Your task to perform on an android device: Go to privacy settings Image 0: 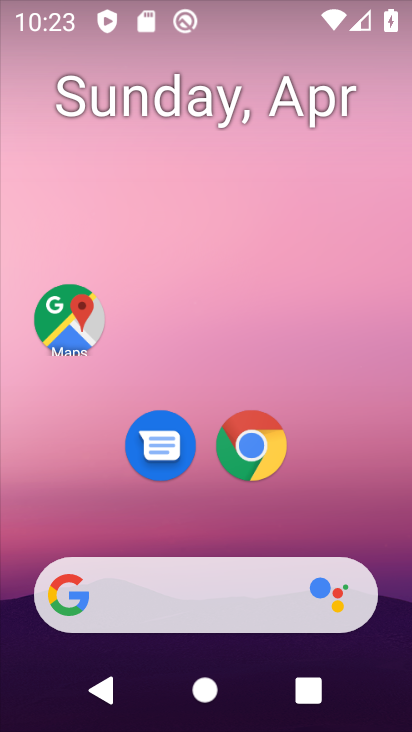
Step 0: press home button
Your task to perform on an android device: Go to privacy settings Image 1: 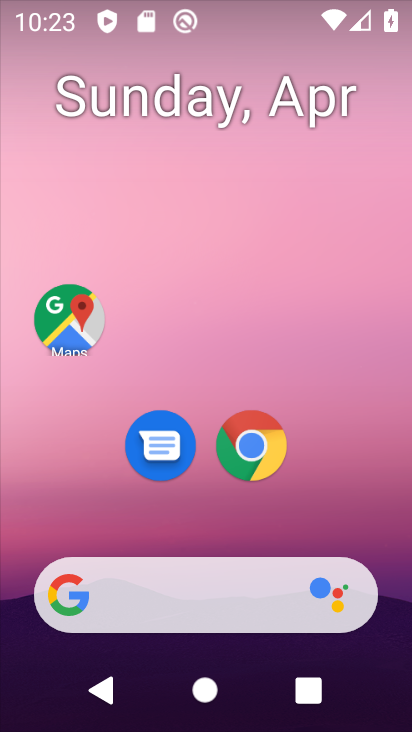
Step 1: drag from (220, 560) to (333, 33)
Your task to perform on an android device: Go to privacy settings Image 2: 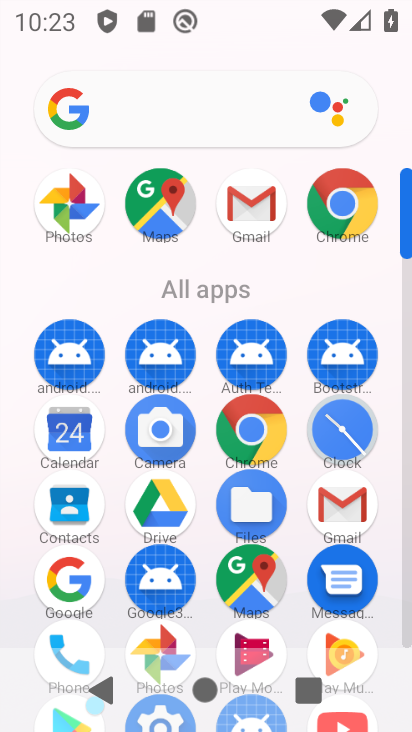
Step 2: drag from (128, 615) to (323, 73)
Your task to perform on an android device: Go to privacy settings Image 3: 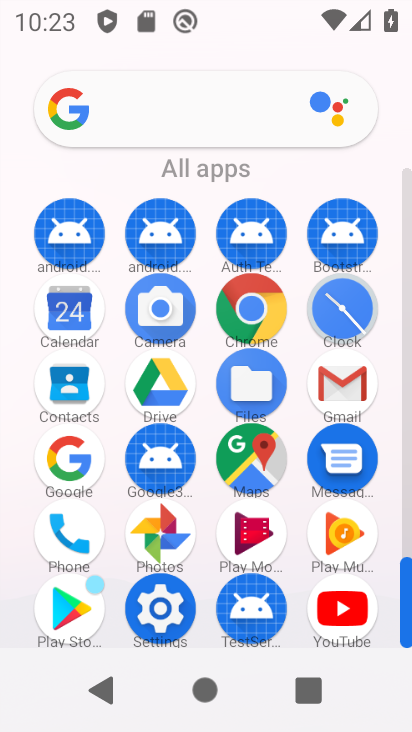
Step 3: click (171, 620)
Your task to perform on an android device: Go to privacy settings Image 4: 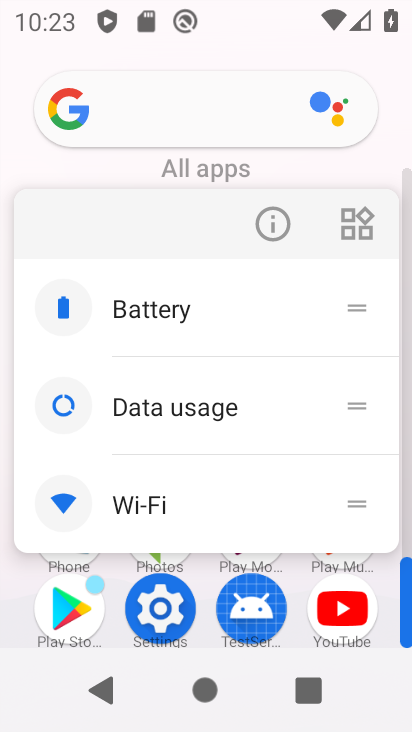
Step 4: click (158, 632)
Your task to perform on an android device: Go to privacy settings Image 5: 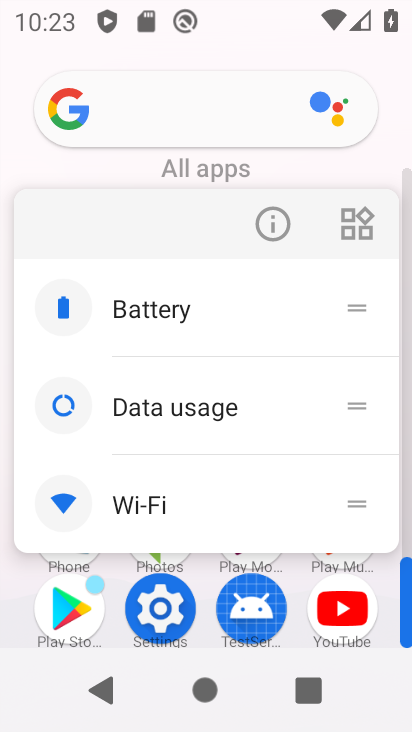
Step 5: click (177, 608)
Your task to perform on an android device: Go to privacy settings Image 6: 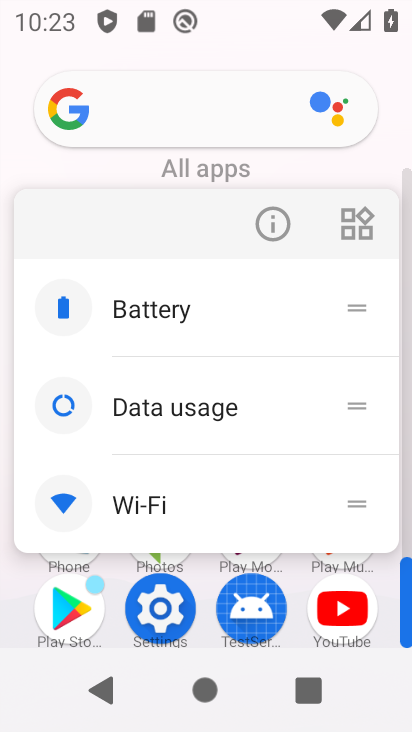
Step 6: click (169, 602)
Your task to perform on an android device: Go to privacy settings Image 7: 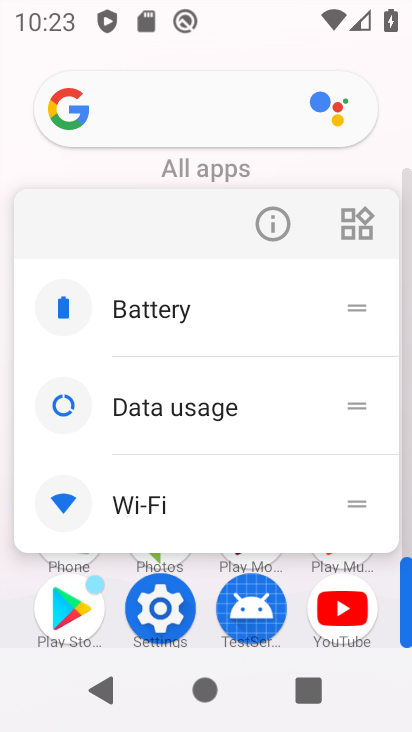
Step 7: click (159, 613)
Your task to perform on an android device: Go to privacy settings Image 8: 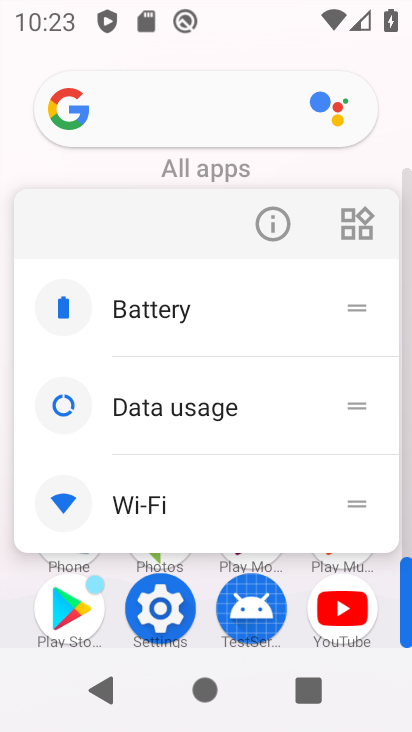
Step 8: click (152, 621)
Your task to perform on an android device: Go to privacy settings Image 9: 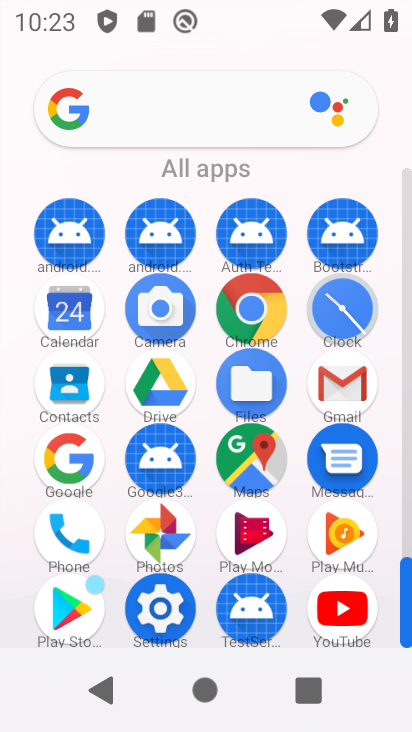
Step 9: click (156, 618)
Your task to perform on an android device: Go to privacy settings Image 10: 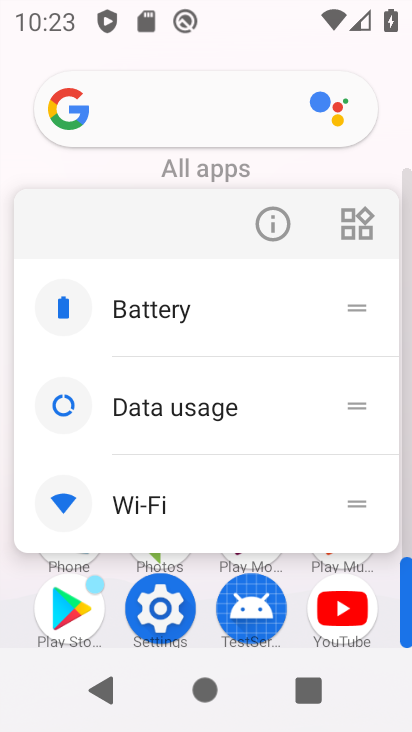
Step 10: click (161, 630)
Your task to perform on an android device: Go to privacy settings Image 11: 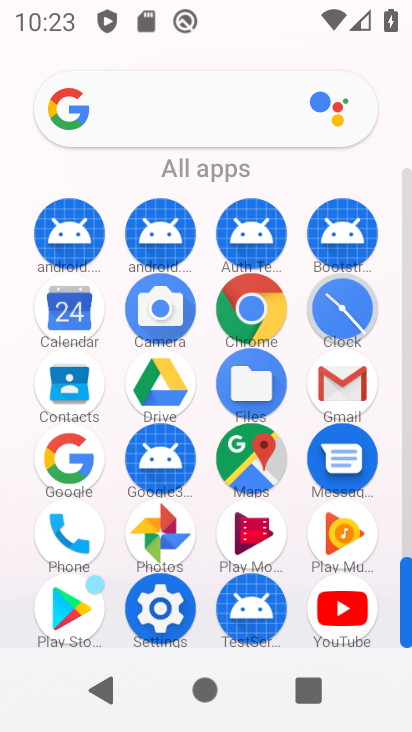
Step 11: click (167, 610)
Your task to perform on an android device: Go to privacy settings Image 12: 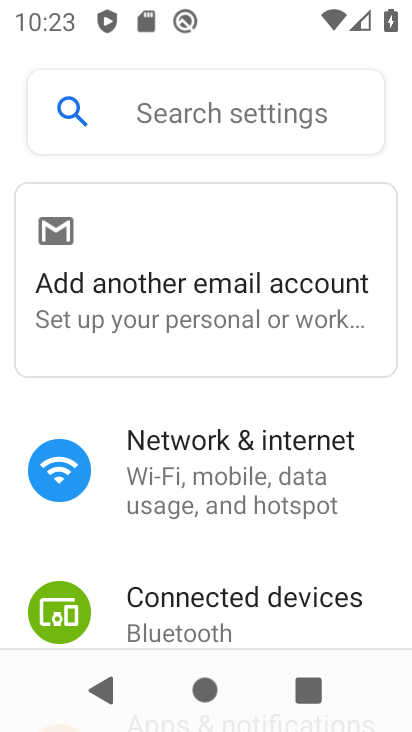
Step 12: drag from (177, 596) to (321, 203)
Your task to perform on an android device: Go to privacy settings Image 13: 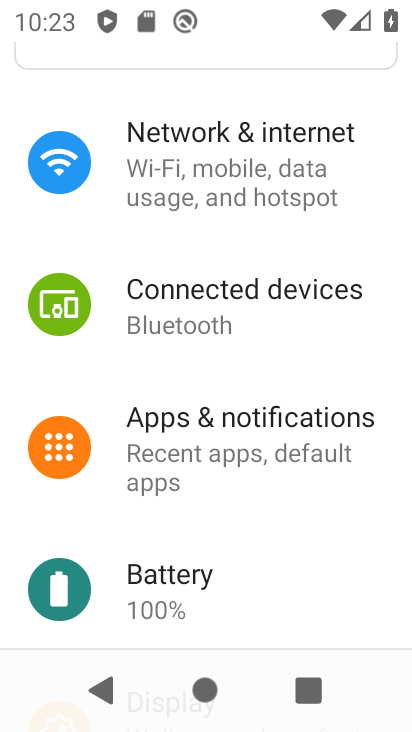
Step 13: drag from (205, 588) to (352, 55)
Your task to perform on an android device: Go to privacy settings Image 14: 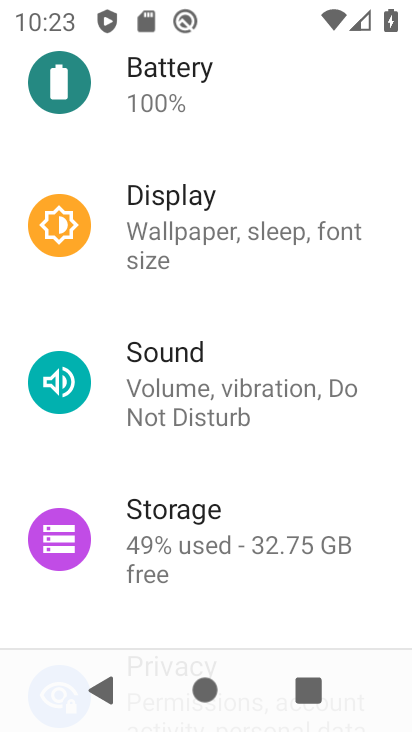
Step 14: drag from (193, 615) to (329, 93)
Your task to perform on an android device: Go to privacy settings Image 15: 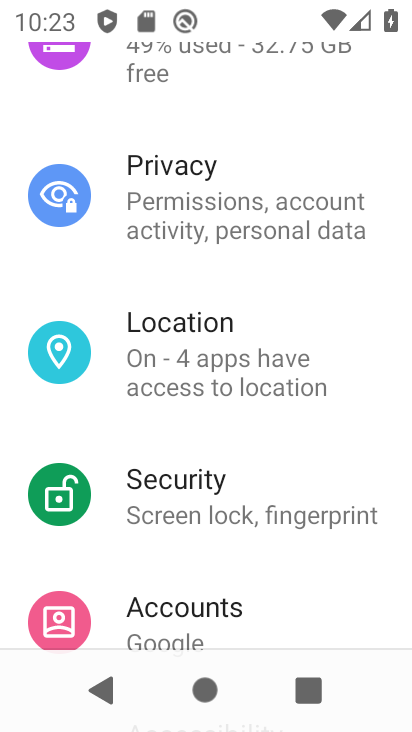
Step 15: click (213, 202)
Your task to perform on an android device: Go to privacy settings Image 16: 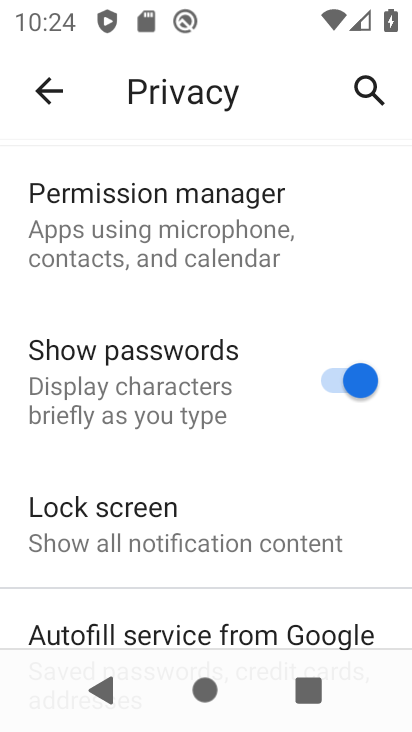
Step 16: task complete